Your task to perform on an android device: remove spam from my inbox in the gmail app Image 0: 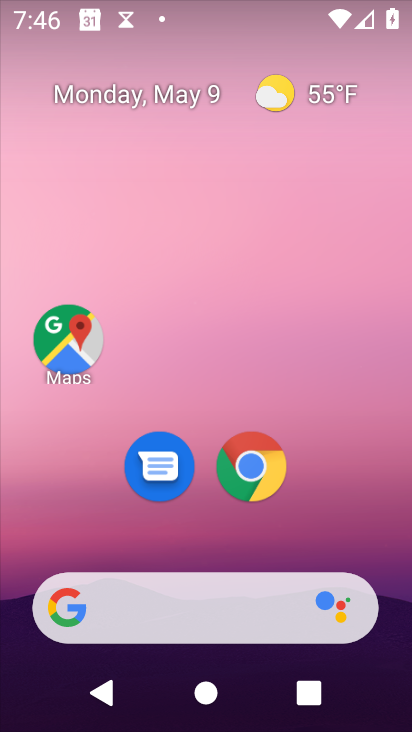
Step 0: click (75, 340)
Your task to perform on an android device: remove spam from my inbox in the gmail app Image 1: 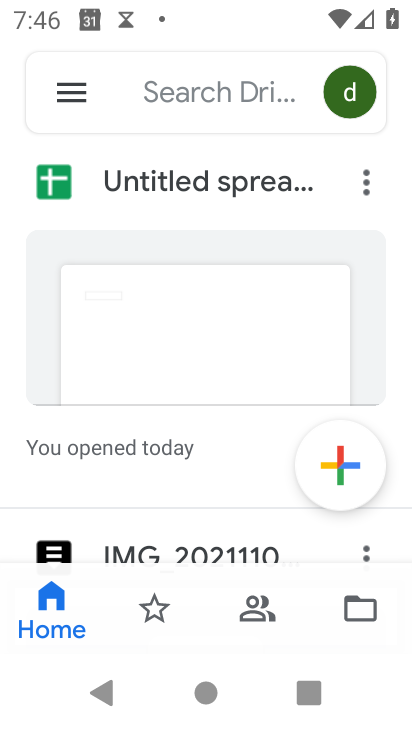
Step 1: press home button
Your task to perform on an android device: remove spam from my inbox in the gmail app Image 2: 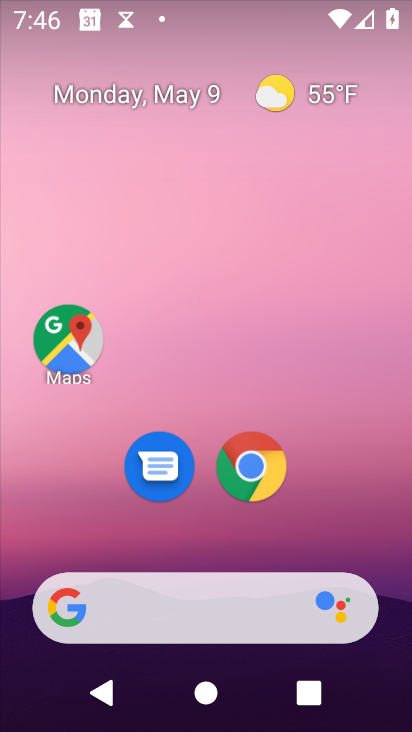
Step 2: drag from (349, 549) to (185, 204)
Your task to perform on an android device: remove spam from my inbox in the gmail app Image 3: 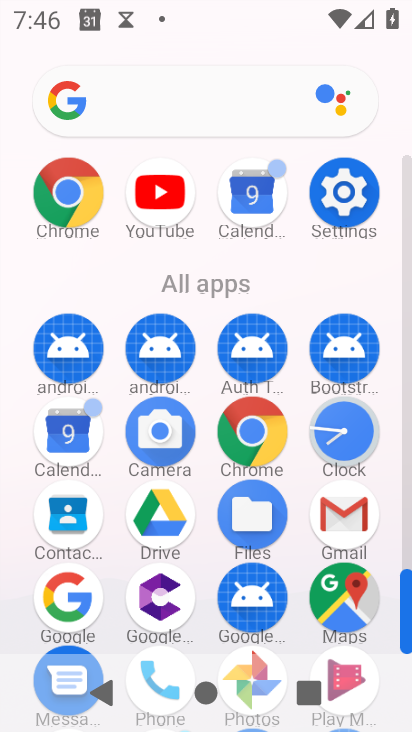
Step 3: click (333, 509)
Your task to perform on an android device: remove spam from my inbox in the gmail app Image 4: 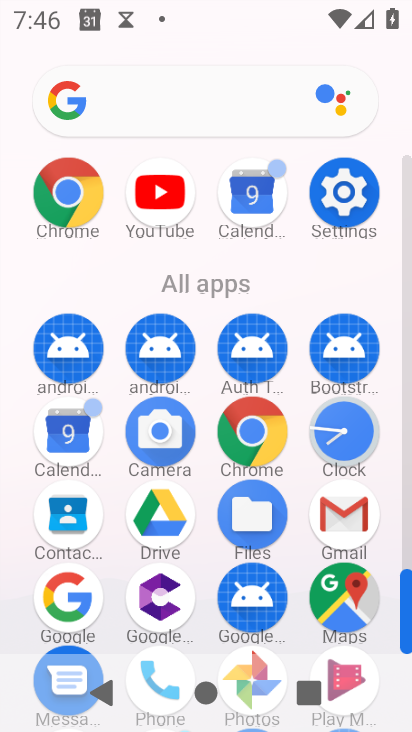
Step 4: click (334, 508)
Your task to perform on an android device: remove spam from my inbox in the gmail app Image 5: 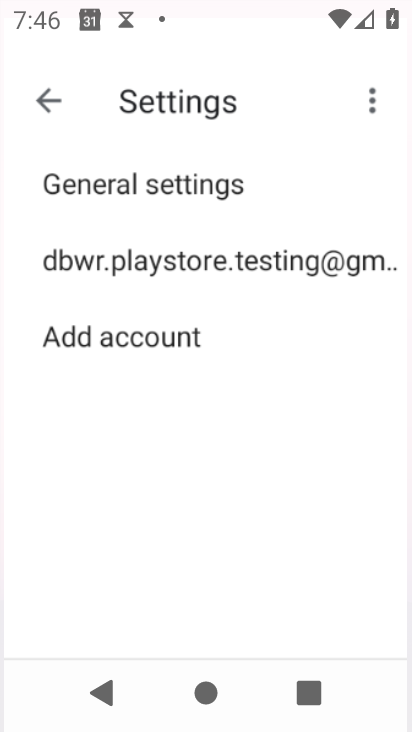
Step 5: click (334, 508)
Your task to perform on an android device: remove spam from my inbox in the gmail app Image 6: 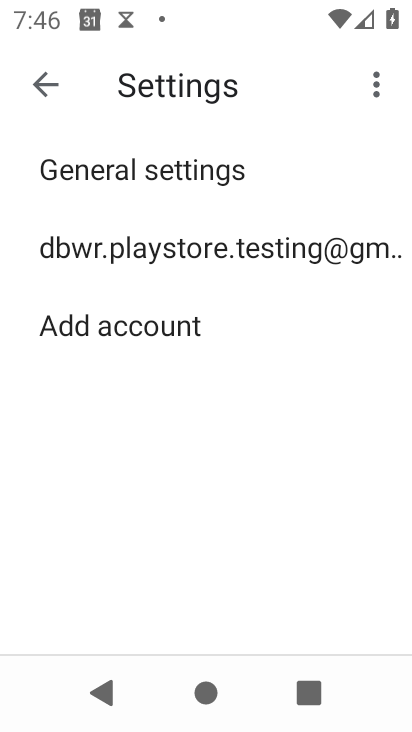
Step 6: click (334, 508)
Your task to perform on an android device: remove spam from my inbox in the gmail app Image 7: 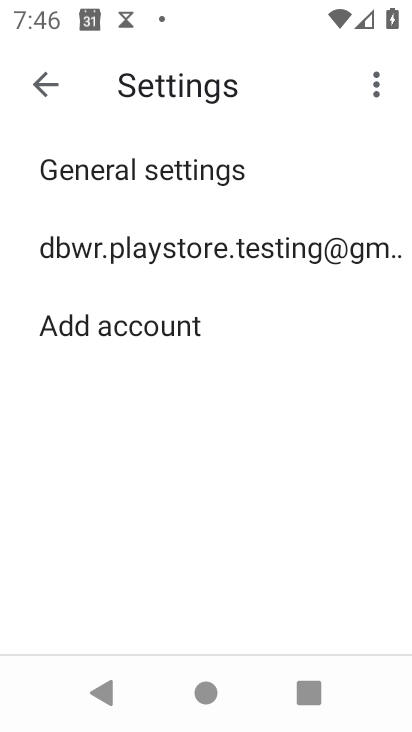
Step 7: click (161, 253)
Your task to perform on an android device: remove spam from my inbox in the gmail app Image 8: 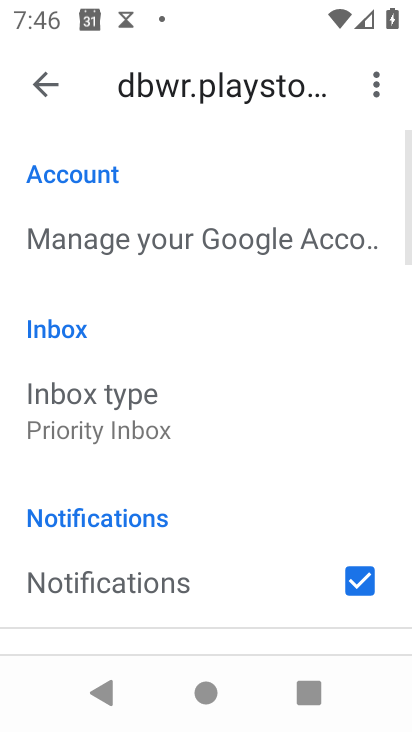
Step 8: click (37, 86)
Your task to perform on an android device: remove spam from my inbox in the gmail app Image 9: 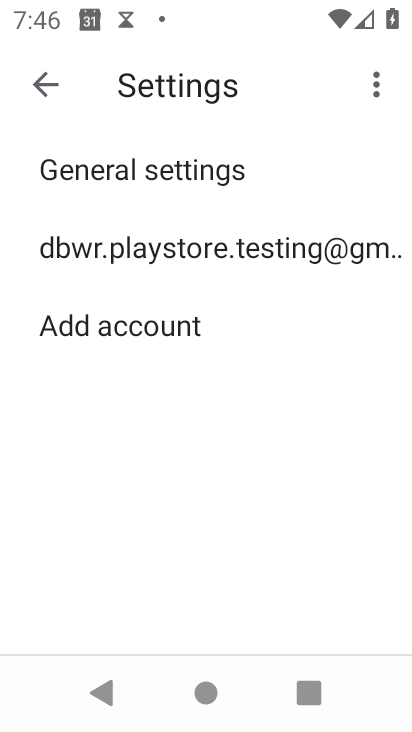
Step 9: click (42, 90)
Your task to perform on an android device: remove spam from my inbox in the gmail app Image 10: 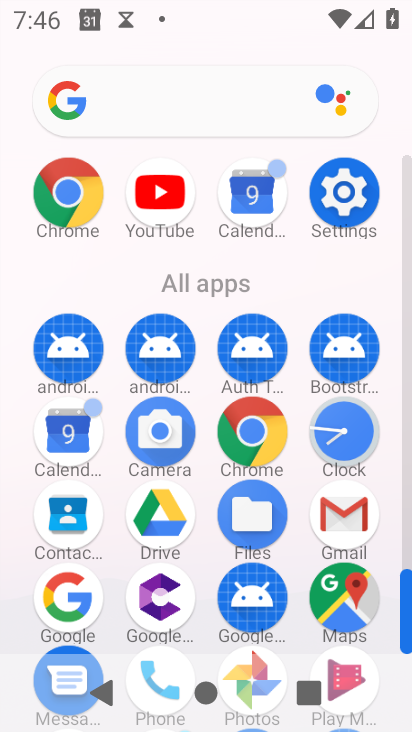
Step 10: click (350, 509)
Your task to perform on an android device: remove spam from my inbox in the gmail app Image 11: 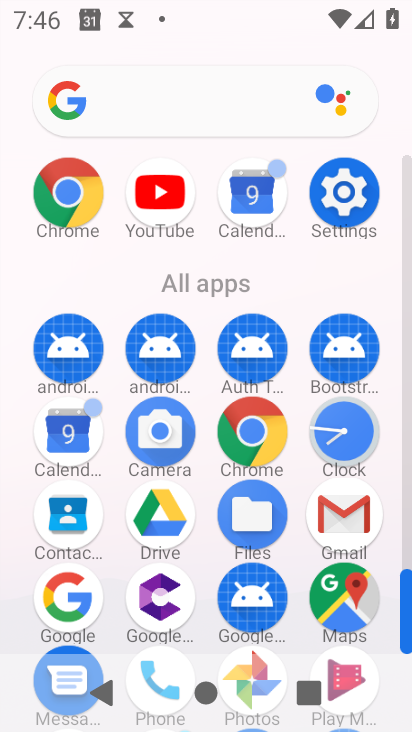
Step 11: click (350, 509)
Your task to perform on an android device: remove spam from my inbox in the gmail app Image 12: 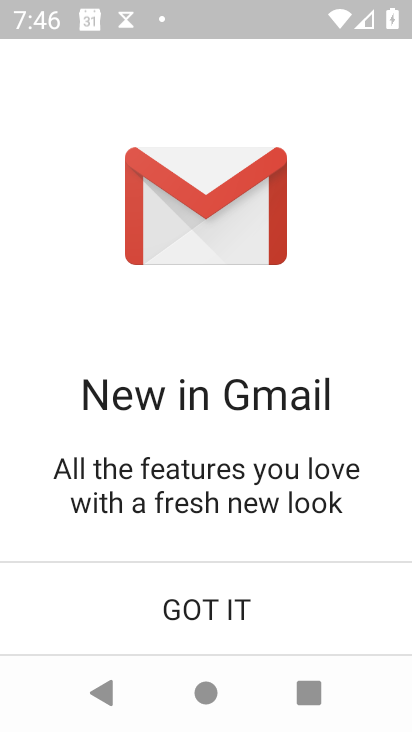
Step 12: click (200, 618)
Your task to perform on an android device: remove spam from my inbox in the gmail app Image 13: 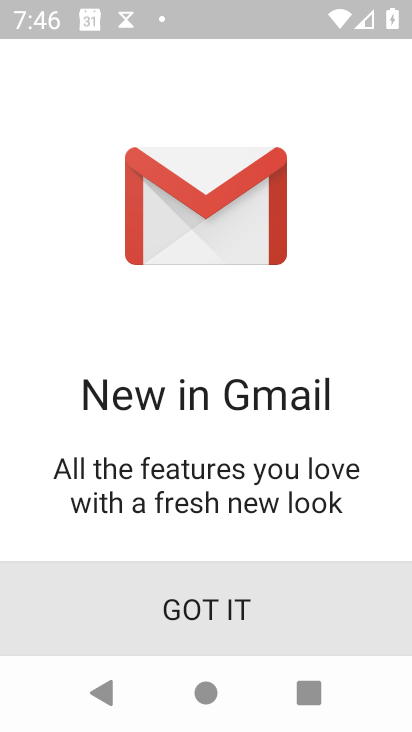
Step 13: click (201, 617)
Your task to perform on an android device: remove spam from my inbox in the gmail app Image 14: 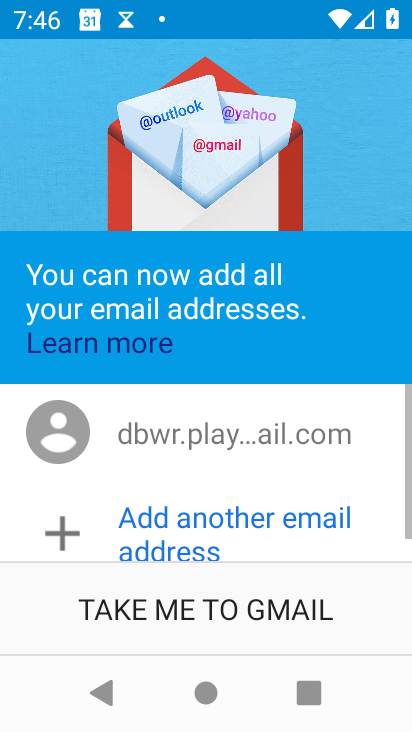
Step 14: click (205, 599)
Your task to perform on an android device: remove spam from my inbox in the gmail app Image 15: 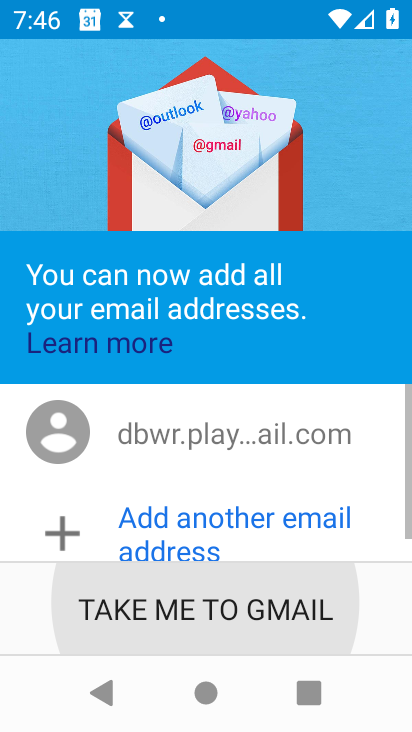
Step 15: click (205, 599)
Your task to perform on an android device: remove spam from my inbox in the gmail app Image 16: 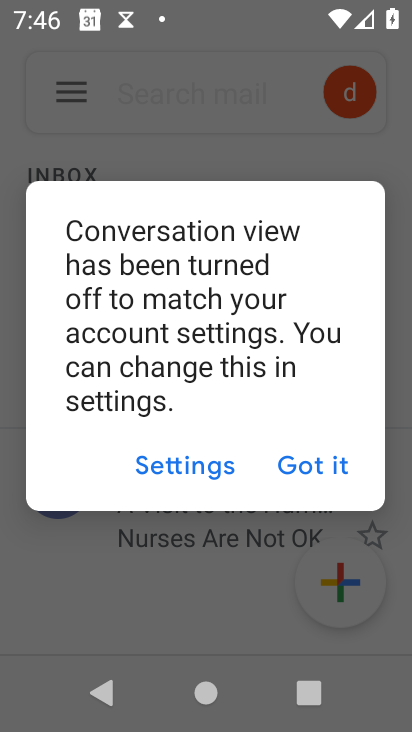
Step 16: click (313, 460)
Your task to perform on an android device: remove spam from my inbox in the gmail app Image 17: 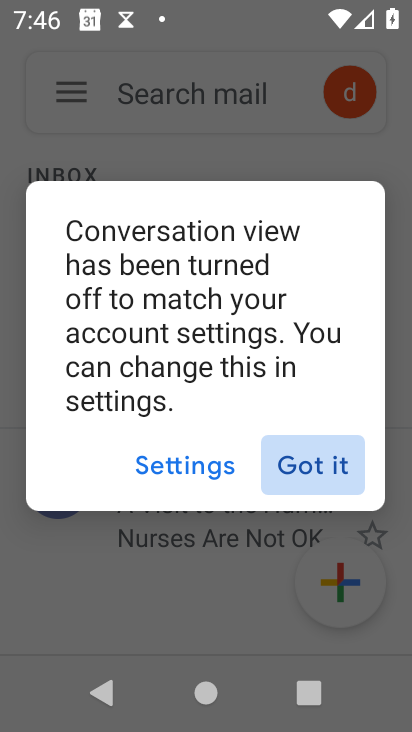
Step 17: click (313, 460)
Your task to perform on an android device: remove spam from my inbox in the gmail app Image 18: 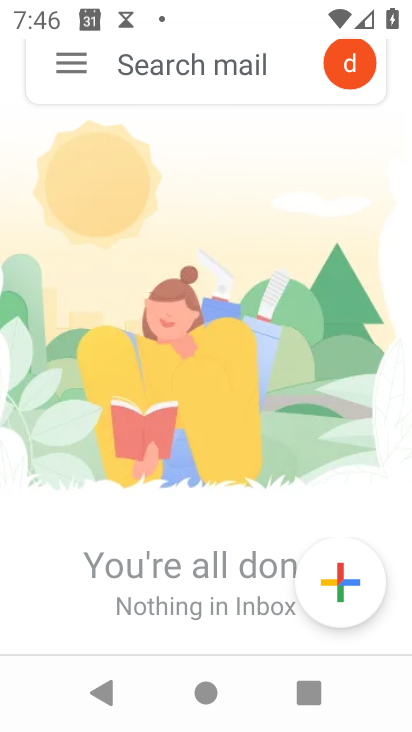
Step 18: click (39, 77)
Your task to perform on an android device: remove spam from my inbox in the gmail app Image 19: 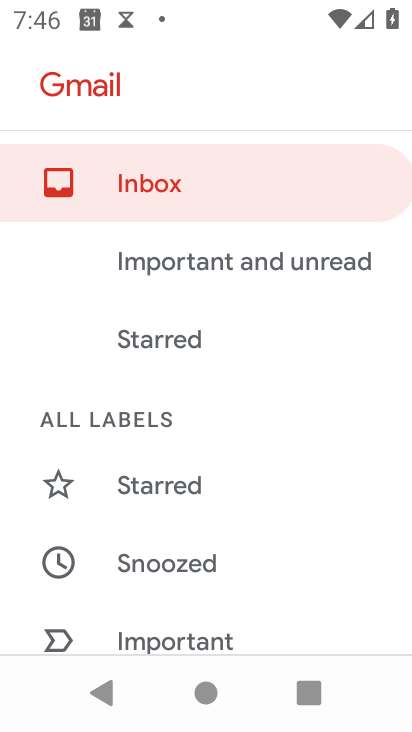
Step 19: drag from (230, 573) to (165, 127)
Your task to perform on an android device: remove spam from my inbox in the gmail app Image 20: 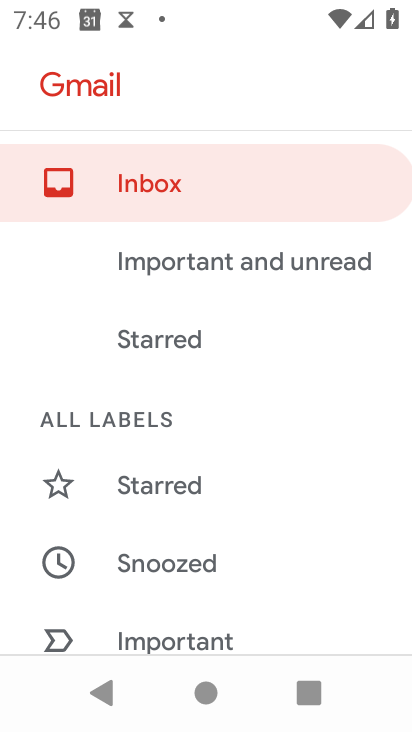
Step 20: drag from (236, 615) to (209, 315)
Your task to perform on an android device: remove spam from my inbox in the gmail app Image 21: 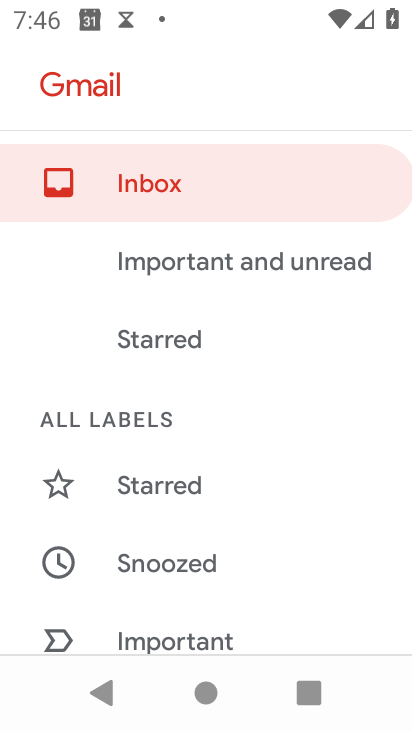
Step 21: drag from (199, 500) to (178, 178)
Your task to perform on an android device: remove spam from my inbox in the gmail app Image 22: 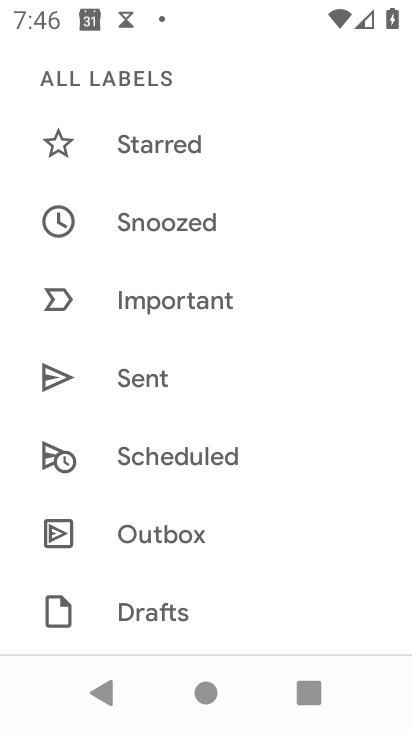
Step 22: drag from (220, 454) to (198, 220)
Your task to perform on an android device: remove spam from my inbox in the gmail app Image 23: 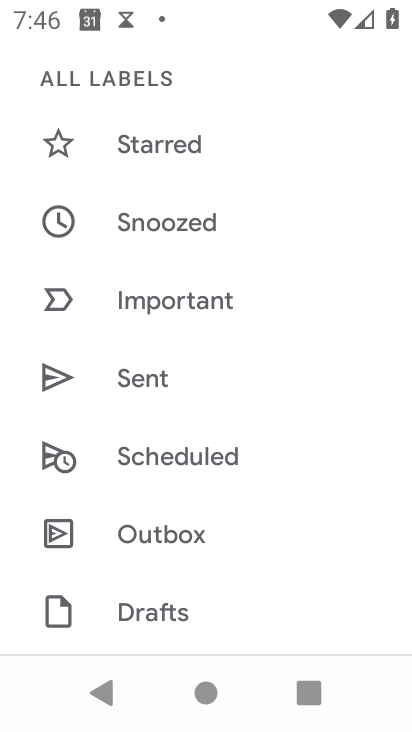
Step 23: drag from (300, 384) to (300, 48)
Your task to perform on an android device: remove spam from my inbox in the gmail app Image 24: 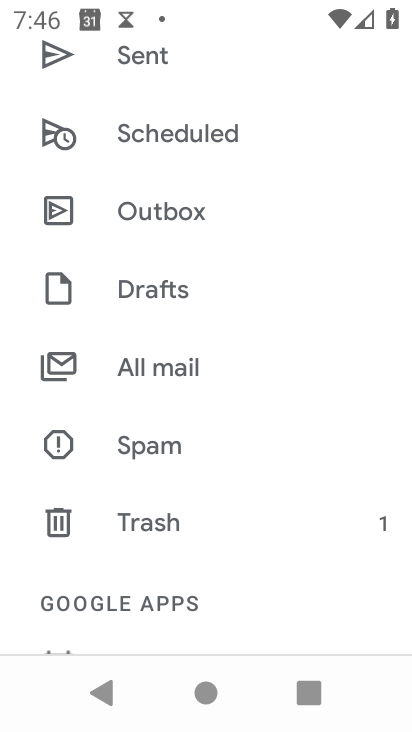
Step 24: drag from (196, 329) to (198, 174)
Your task to perform on an android device: remove spam from my inbox in the gmail app Image 25: 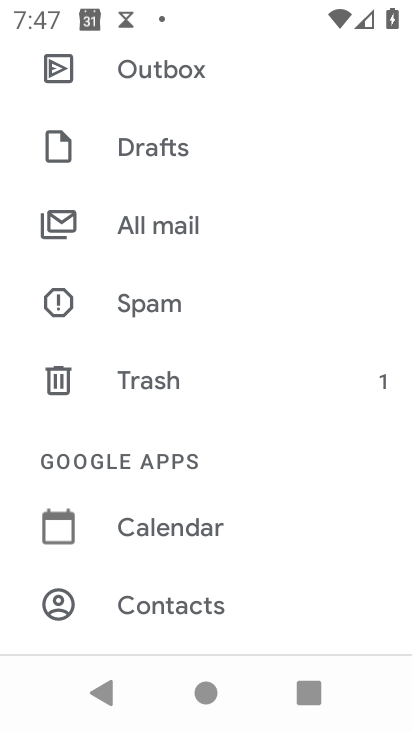
Step 25: click (144, 229)
Your task to perform on an android device: remove spam from my inbox in the gmail app Image 26: 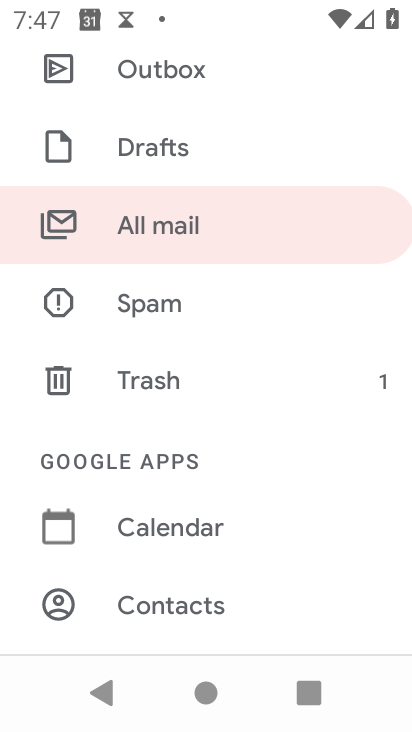
Step 26: click (144, 229)
Your task to perform on an android device: remove spam from my inbox in the gmail app Image 27: 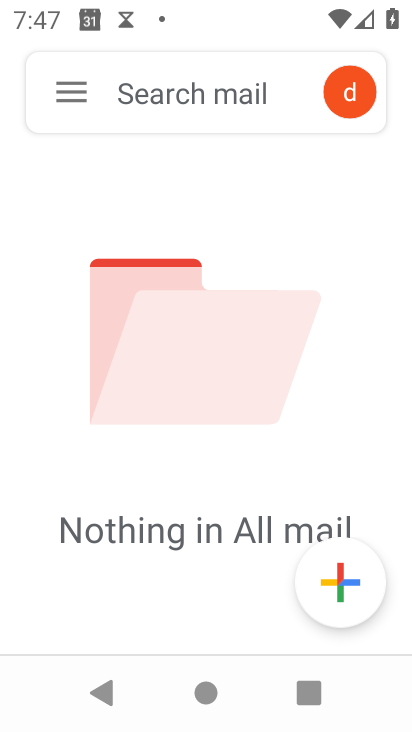
Step 27: task complete